Your task to perform on an android device: Go to Yahoo.com Image 0: 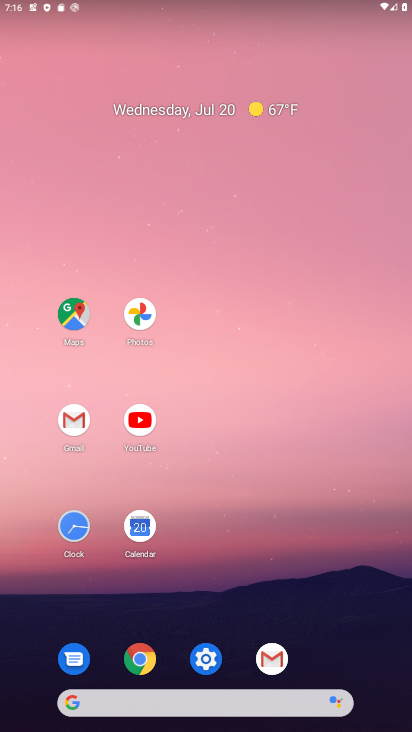
Step 0: click (137, 656)
Your task to perform on an android device: Go to Yahoo.com Image 1: 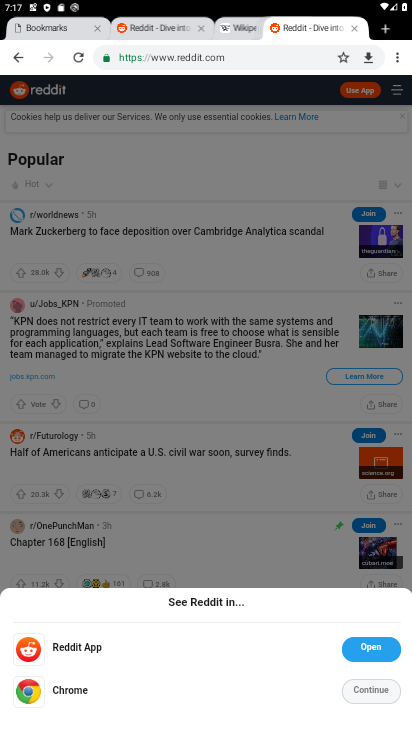
Step 1: click (396, 59)
Your task to perform on an android device: Go to Yahoo.com Image 2: 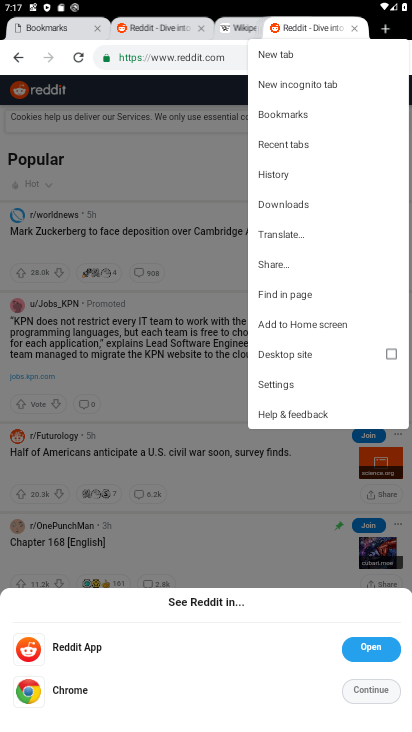
Step 2: click (270, 52)
Your task to perform on an android device: Go to Yahoo.com Image 3: 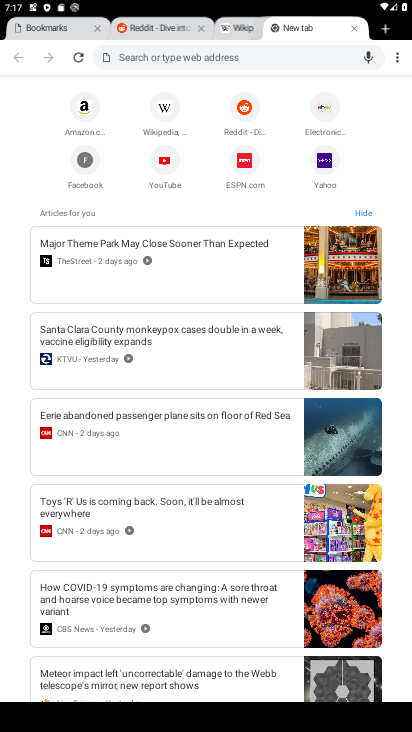
Step 3: click (323, 156)
Your task to perform on an android device: Go to Yahoo.com Image 4: 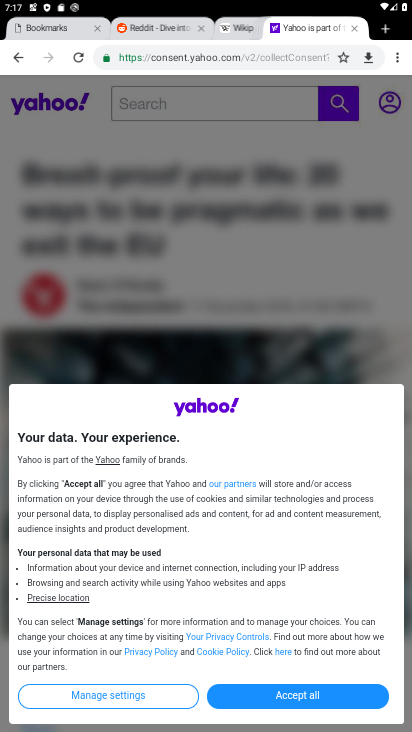
Step 4: click (291, 701)
Your task to perform on an android device: Go to Yahoo.com Image 5: 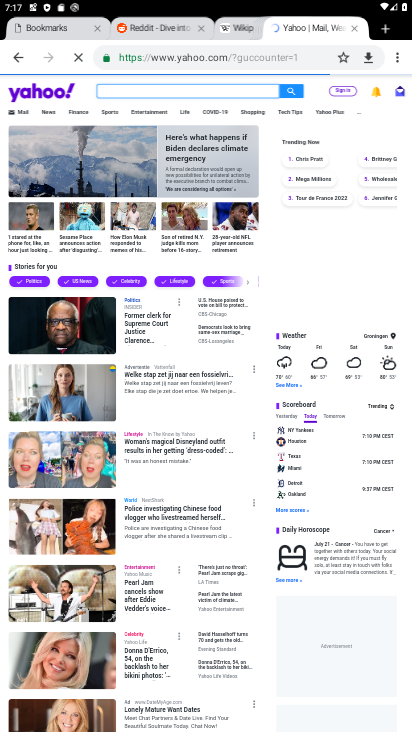
Step 5: task complete